Your task to perform on an android device: toggle javascript in the chrome app Image 0: 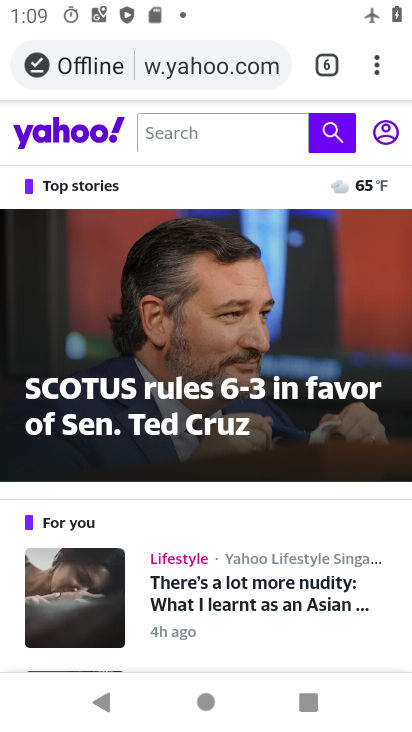
Step 0: press home button
Your task to perform on an android device: toggle javascript in the chrome app Image 1: 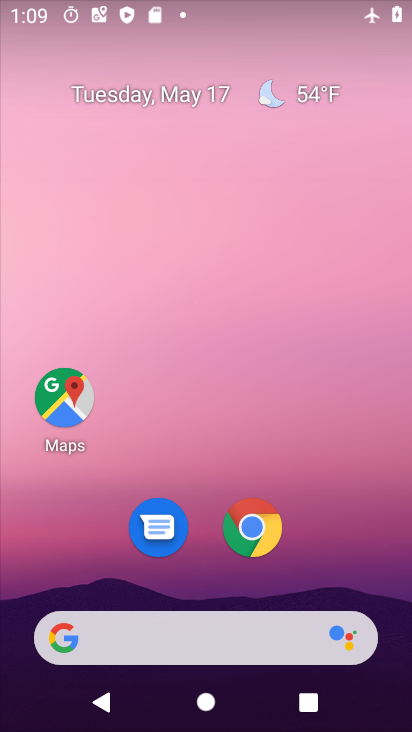
Step 1: drag from (245, 668) to (235, 133)
Your task to perform on an android device: toggle javascript in the chrome app Image 2: 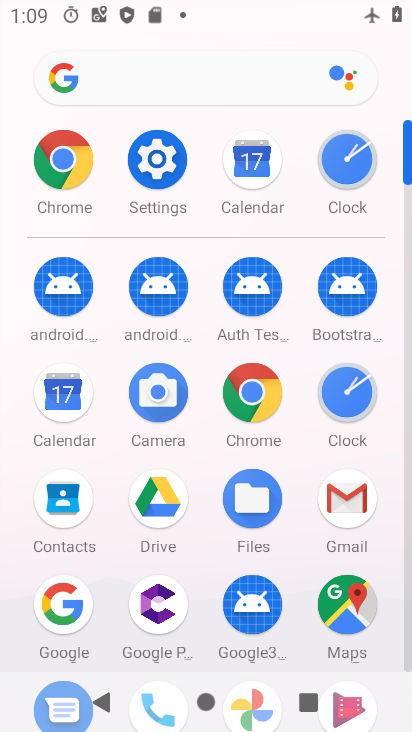
Step 2: click (42, 160)
Your task to perform on an android device: toggle javascript in the chrome app Image 3: 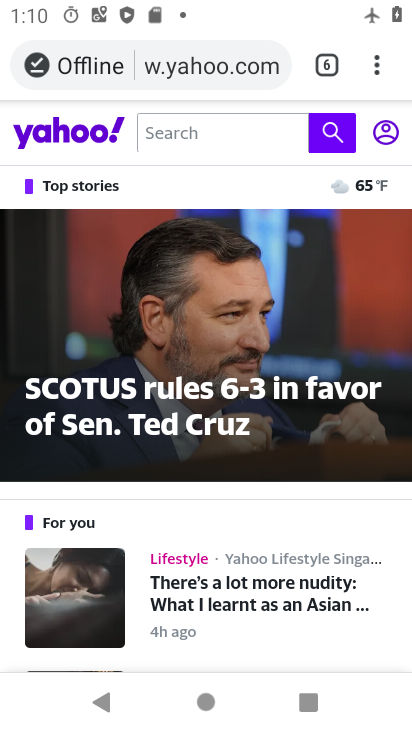
Step 3: click (364, 66)
Your task to perform on an android device: toggle javascript in the chrome app Image 4: 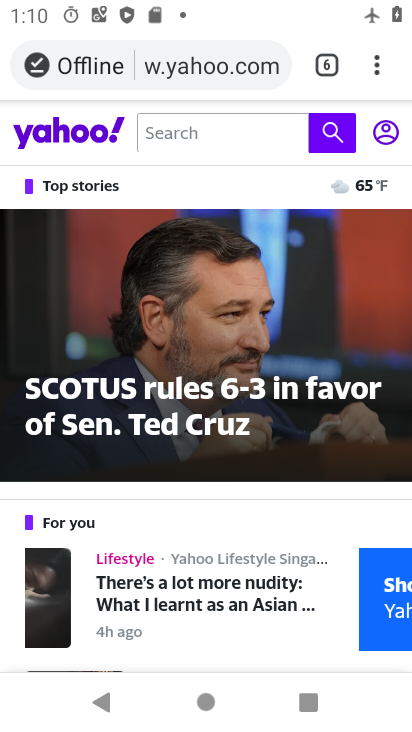
Step 4: click (364, 62)
Your task to perform on an android device: toggle javascript in the chrome app Image 5: 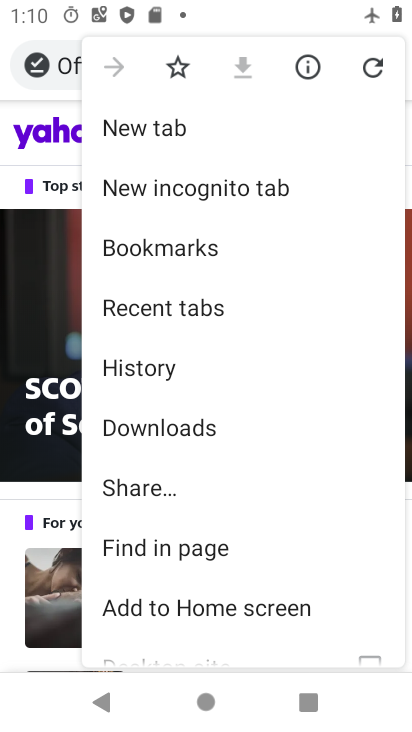
Step 5: drag from (251, 526) to (238, 212)
Your task to perform on an android device: toggle javascript in the chrome app Image 6: 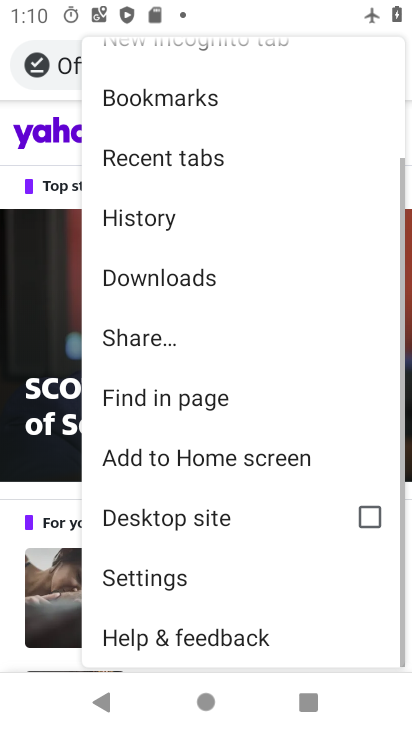
Step 6: click (158, 575)
Your task to perform on an android device: toggle javascript in the chrome app Image 7: 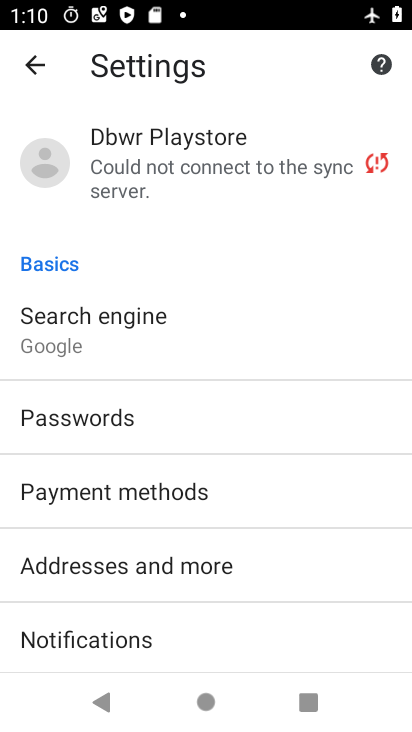
Step 7: drag from (162, 567) to (161, 323)
Your task to perform on an android device: toggle javascript in the chrome app Image 8: 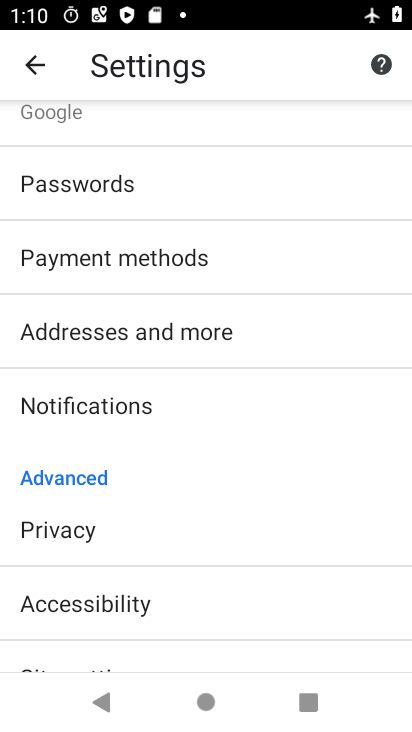
Step 8: drag from (127, 621) to (166, 471)
Your task to perform on an android device: toggle javascript in the chrome app Image 9: 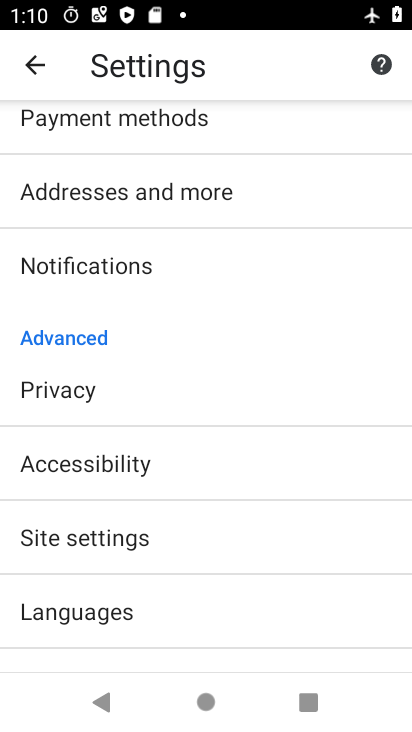
Step 9: click (94, 549)
Your task to perform on an android device: toggle javascript in the chrome app Image 10: 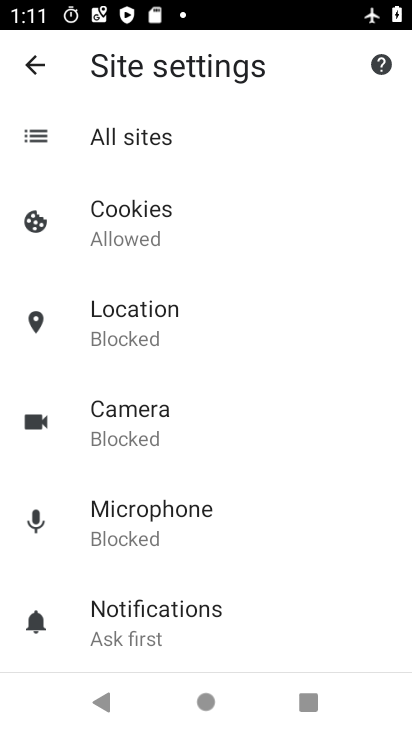
Step 10: drag from (133, 621) to (180, 342)
Your task to perform on an android device: toggle javascript in the chrome app Image 11: 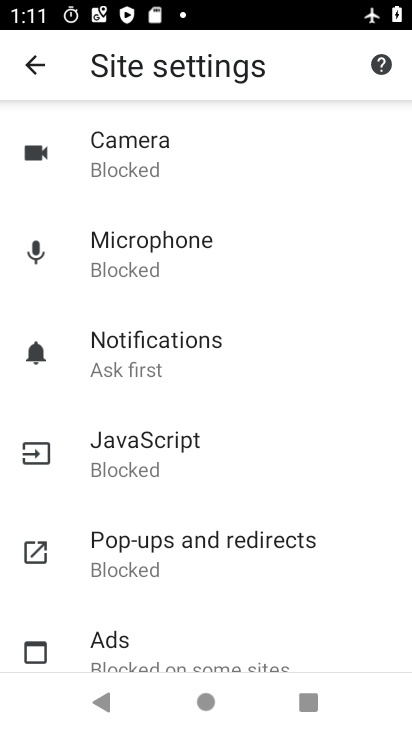
Step 11: click (147, 583)
Your task to perform on an android device: toggle javascript in the chrome app Image 12: 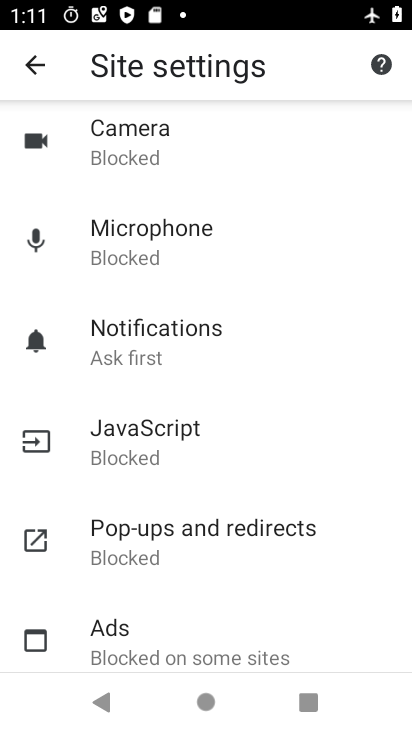
Step 12: click (173, 444)
Your task to perform on an android device: toggle javascript in the chrome app Image 13: 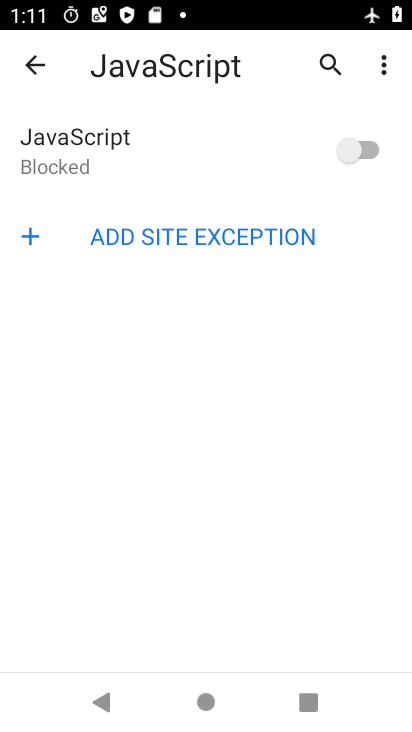
Step 13: task complete